Your task to perform on an android device: Search for apple airpods pro on newegg, select the first entry, add it to the cart, then select checkout. Image 0: 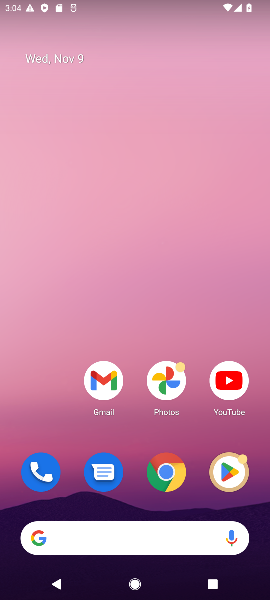
Step 0: click (106, 535)
Your task to perform on an android device: Search for apple airpods pro on newegg, select the first entry, add it to the cart, then select checkout. Image 1: 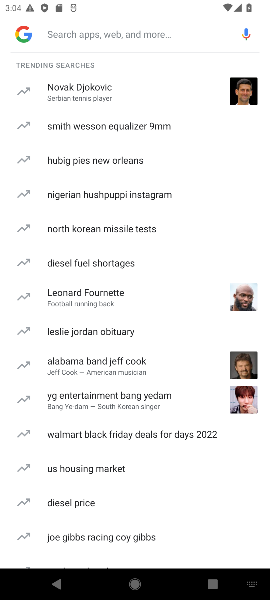
Step 1: type "newegg"
Your task to perform on an android device: Search for apple airpods pro on newegg, select the first entry, add it to the cart, then select checkout. Image 2: 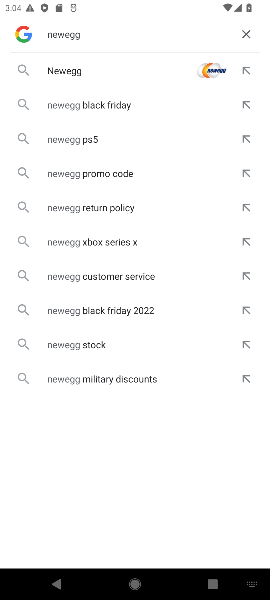
Step 2: click (62, 69)
Your task to perform on an android device: Search for apple airpods pro on newegg, select the first entry, add it to the cart, then select checkout. Image 3: 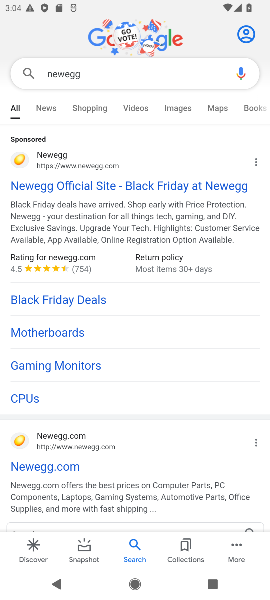
Step 3: click (51, 153)
Your task to perform on an android device: Search for apple airpods pro on newegg, select the first entry, add it to the cart, then select checkout. Image 4: 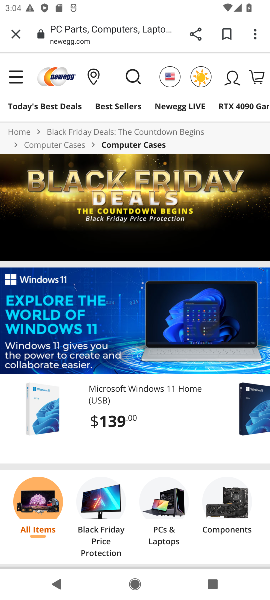
Step 4: click (130, 75)
Your task to perform on an android device: Search for apple airpods pro on newegg, select the first entry, add it to the cart, then select checkout. Image 5: 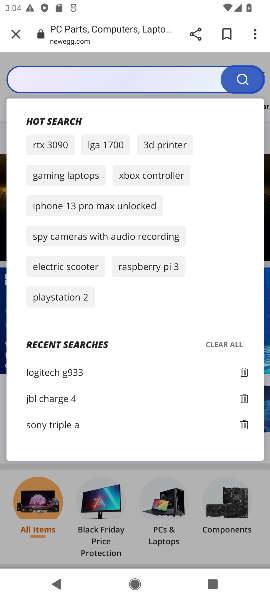
Step 5: click (84, 76)
Your task to perform on an android device: Search for apple airpods pro on newegg, select the first entry, add it to the cart, then select checkout. Image 6: 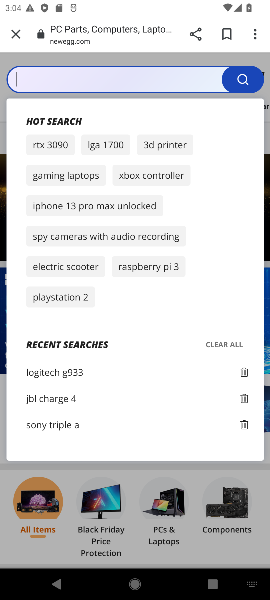
Step 6: type "apple airpods pro"
Your task to perform on an android device: Search for apple airpods pro on newegg, select the first entry, add it to the cart, then select checkout. Image 7: 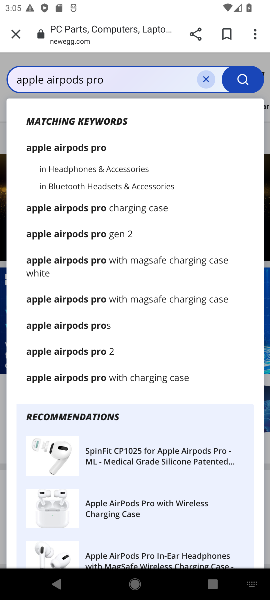
Step 7: click (73, 144)
Your task to perform on an android device: Search for apple airpods pro on newegg, select the first entry, add it to the cart, then select checkout. Image 8: 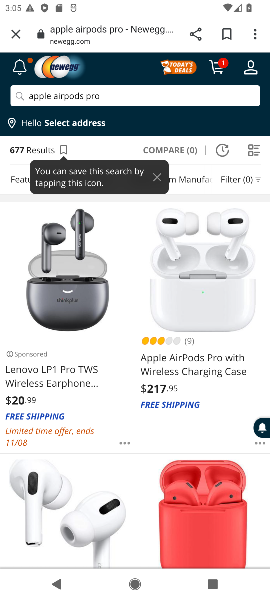
Step 8: click (198, 321)
Your task to perform on an android device: Search for apple airpods pro on newegg, select the first entry, add it to the cart, then select checkout. Image 9: 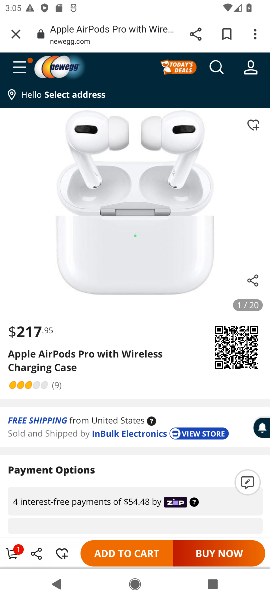
Step 9: click (119, 552)
Your task to perform on an android device: Search for apple airpods pro on newegg, select the first entry, add it to the cart, then select checkout. Image 10: 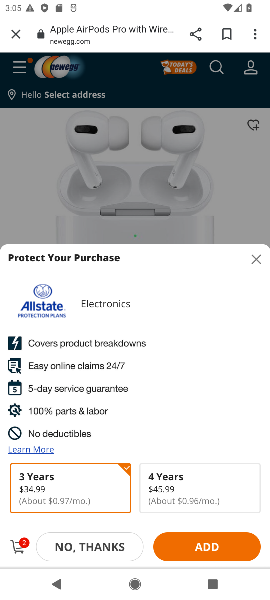
Step 10: click (254, 258)
Your task to perform on an android device: Search for apple airpods pro on newegg, select the first entry, add it to the cart, then select checkout. Image 11: 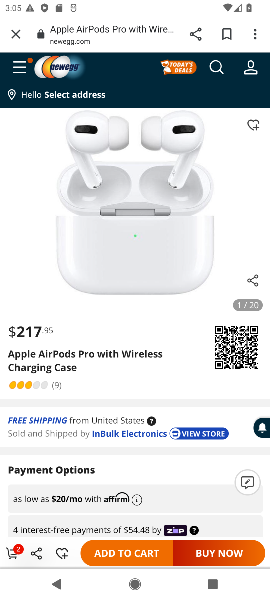
Step 11: click (16, 549)
Your task to perform on an android device: Search for apple airpods pro on newegg, select the first entry, add it to the cart, then select checkout. Image 12: 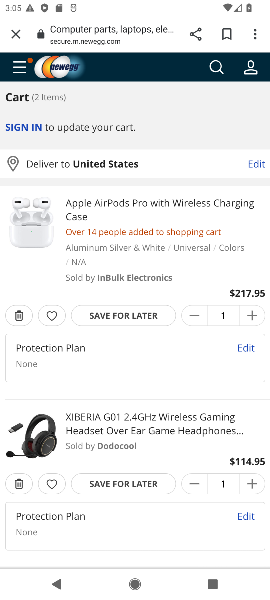
Step 12: drag from (165, 456) to (161, 339)
Your task to perform on an android device: Search for apple airpods pro on newegg, select the first entry, add it to the cart, then select checkout. Image 13: 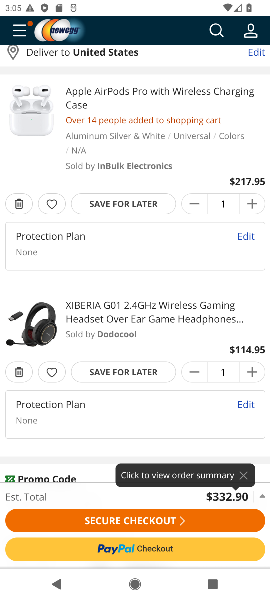
Step 13: click (139, 520)
Your task to perform on an android device: Search for apple airpods pro on newegg, select the first entry, add it to the cart, then select checkout. Image 14: 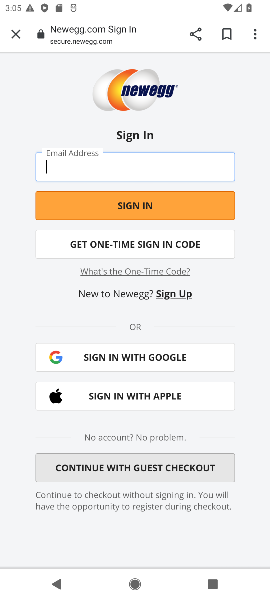
Step 14: task complete